Your task to perform on an android device: allow cookies in the chrome app Image 0: 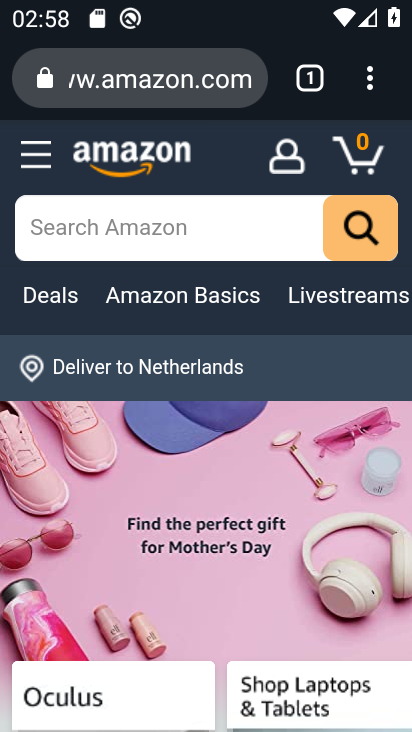
Step 0: press home button
Your task to perform on an android device: allow cookies in the chrome app Image 1: 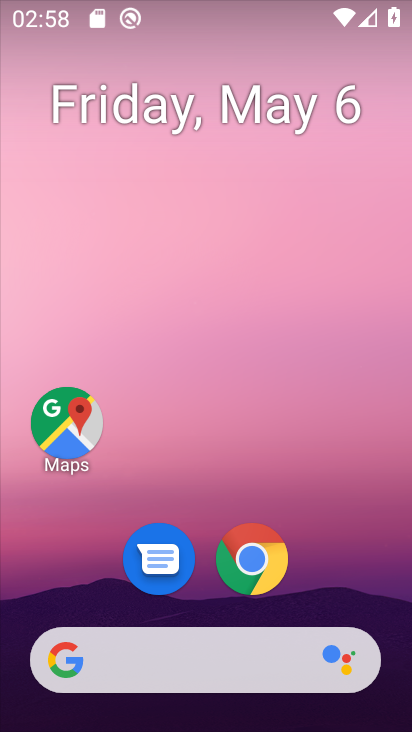
Step 1: drag from (319, 649) to (328, 23)
Your task to perform on an android device: allow cookies in the chrome app Image 2: 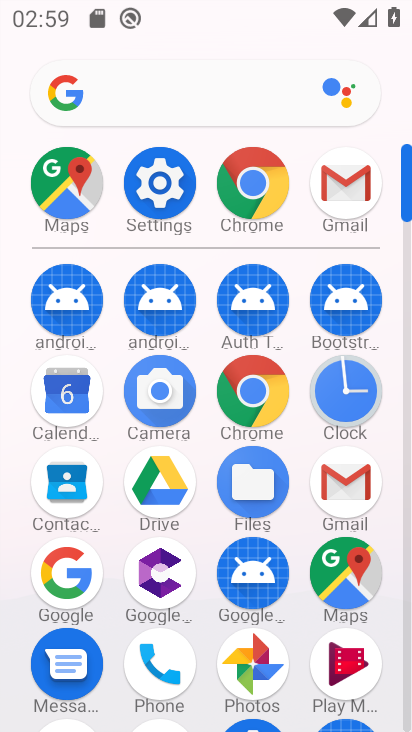
Step 2: click (262, 385)
Your task to perform on an android device: allow cookies in the chrome app Image 3: 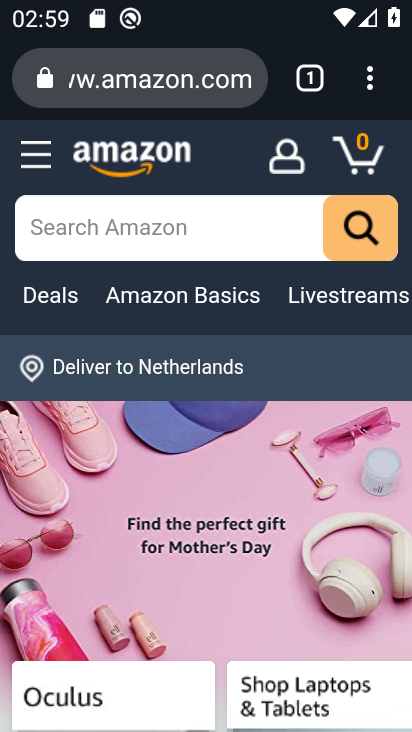
Step 3: drag from (369, 70) to (100, 671)
Your task to perform on an android device: allow cookies in the chrome app Image 4: 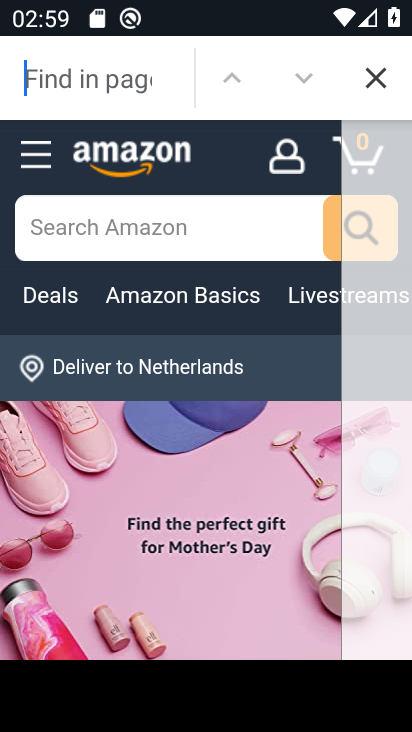
Step 4: click (379, 76)
Your task to perform on an android device: allow cookies in the chrome app Image 5: 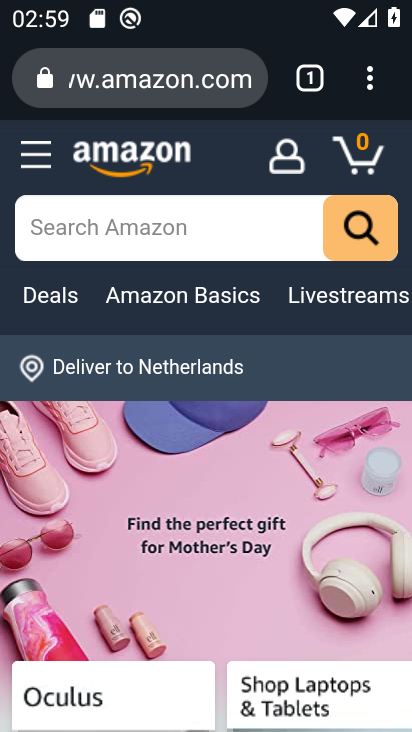
Step 5: drag from (367, 73) to (90, 625)
Your task to perform on an android device: allow cookies in the chrome app Image 6: 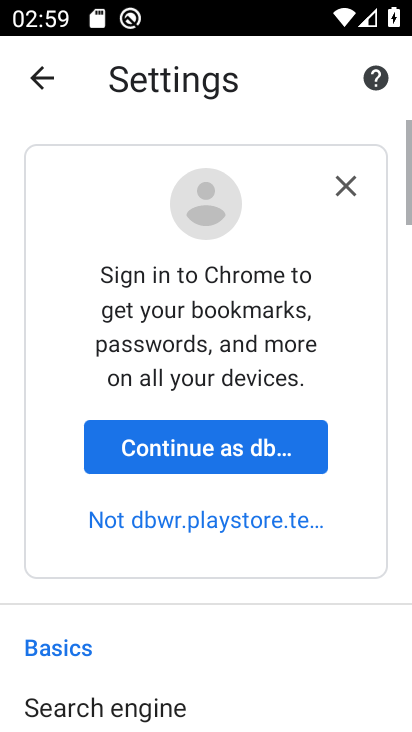
Step 6: drag from (194, 646) to (228, 3)
Your task to perform on an android device: allow cookies in the chrome app Image 7: 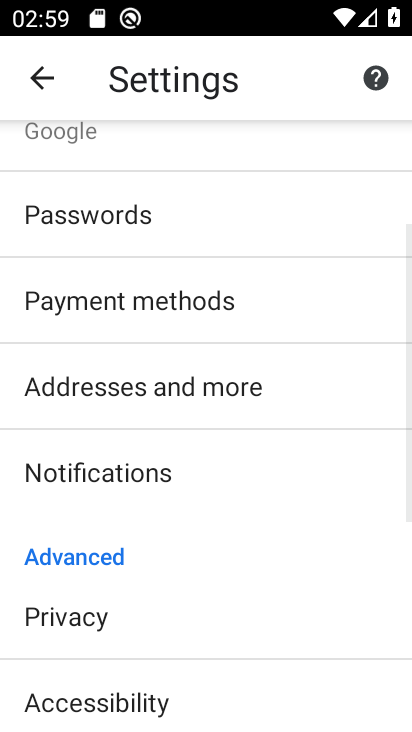
Step 7: drag from (162, 670) to (139, 157)
Your task to perform on an android device: allow cookies in the chrome app Image 8: 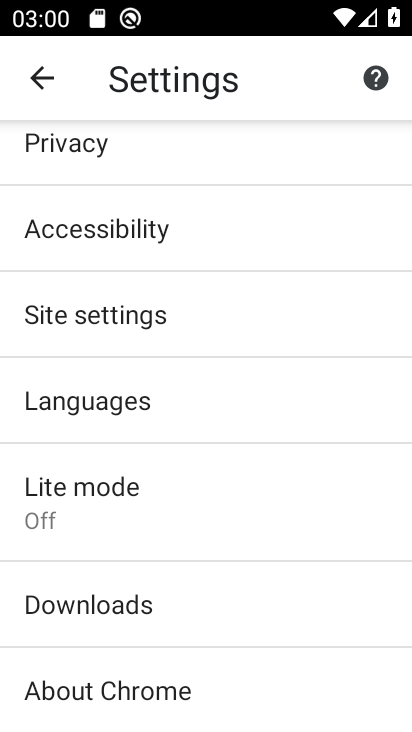
Step 8: click (109, 307)
Your task to perform on an android device: allow cookies in the chrome app Image 9: 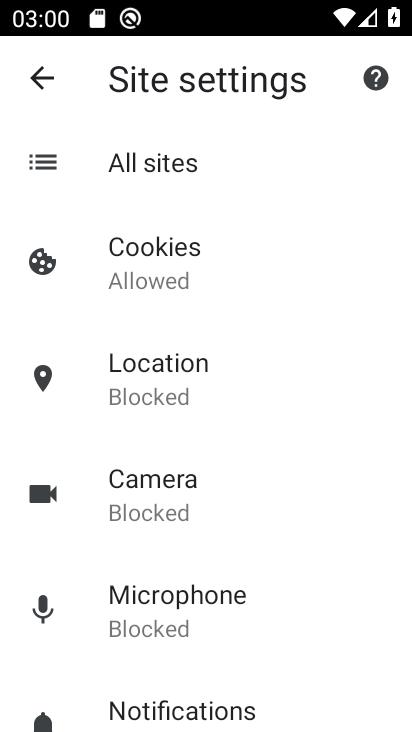
Step 9: click (199, 259)
Your task to perform on an android device: allow cookies in the chrome app Image 10: 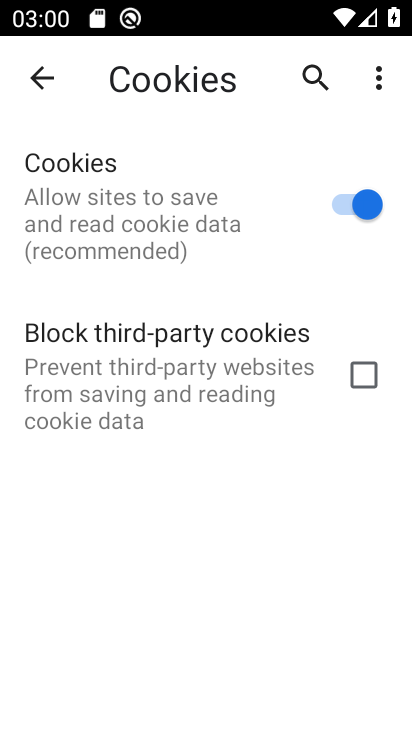
Step 10: task complete